Your task to perform on an android device: check battery use Image 0: 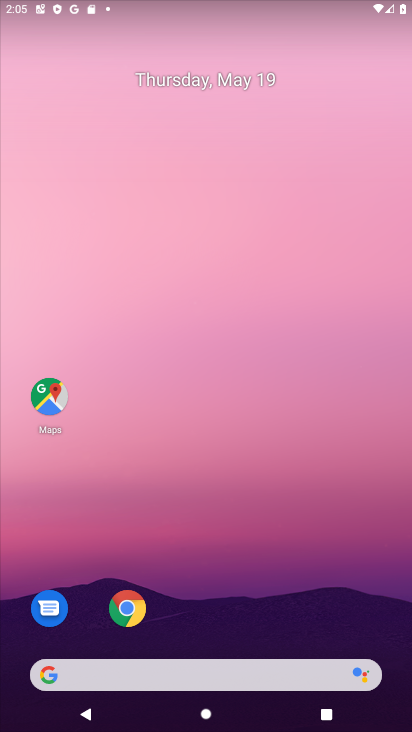
Step 0: drag from (213, 634) to (215, 220)
Your task to perform on an android device: check battery use Image 1: 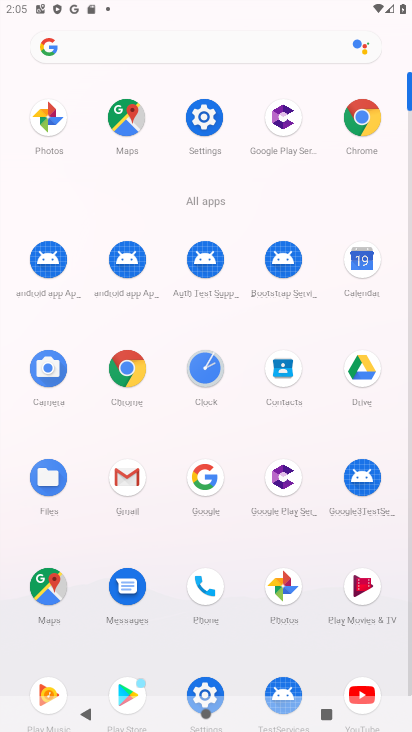
Step 1: click (226, 117)
Your task to perform on an android device: check battery use Image 2: 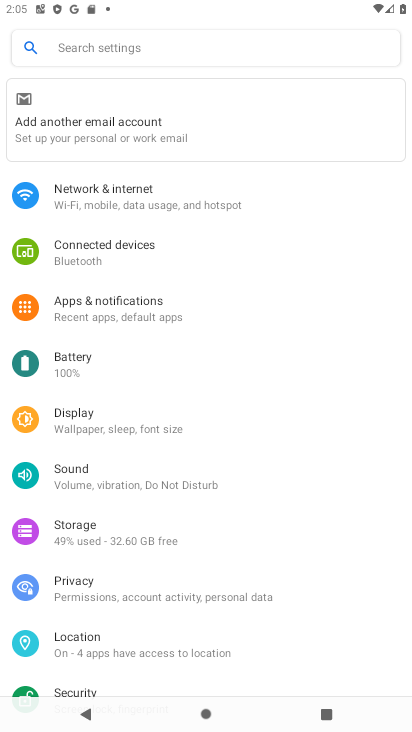
Step 2: click (184, 365)
Your task to perform on an android device: check battery use Image 3: 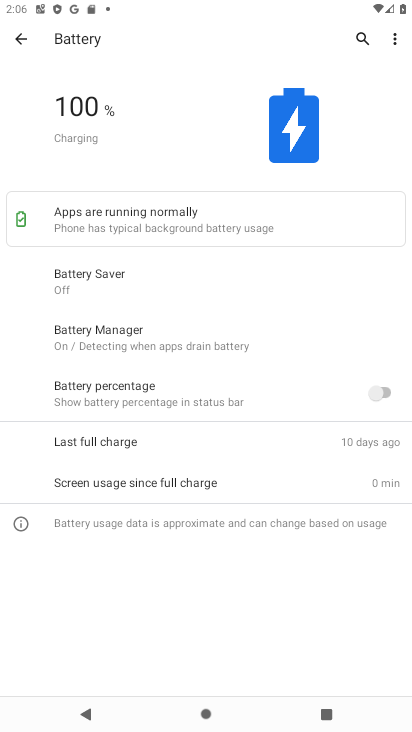
Step 3: task complete